Your task to perform on an android device: Open Reddit.com Image 0: 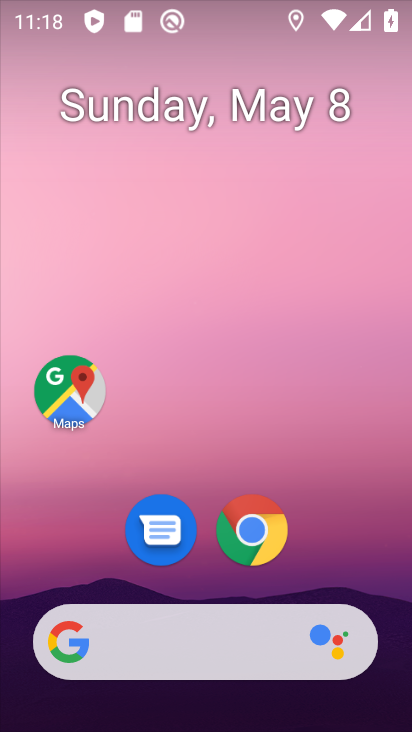
Step 0: drag from (229, 625) to (401, 575)
Your task to perform on an android device: Open Reddit.com Image 1: 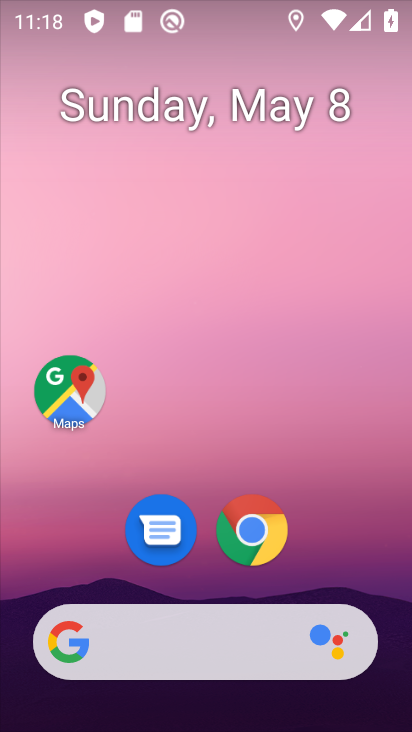
Step 1: drag from (249, 599) to (270, 44)
Your task to perform on an android device: Open Reddit.com Image 2: 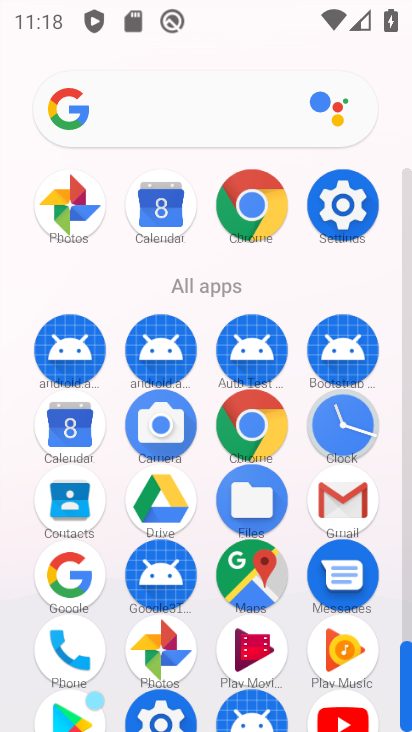
Step 2: click (242, 440)
Your task to perform on an android device: Open Reddit.com Image 3: 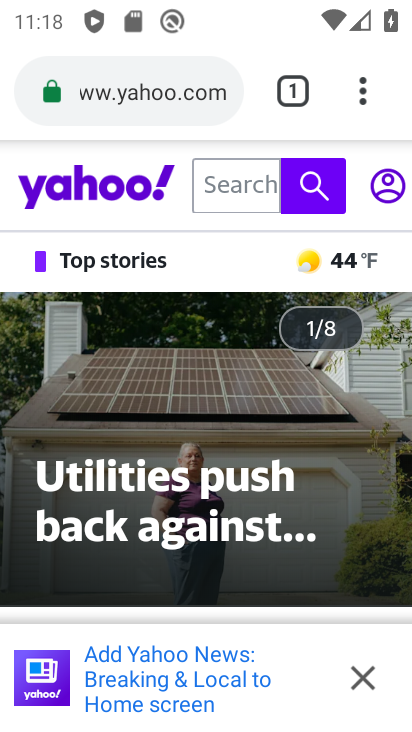
Step 3: click (154, 103)
Your task to perform on an android device: Open Reddit.com Image 4: 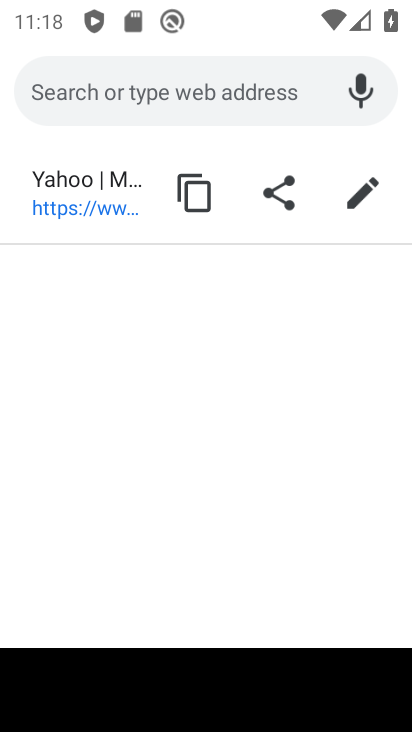
Step 4: type "reddit.com"
Your task to perform on an android device: Open Reddit.com Image 5: 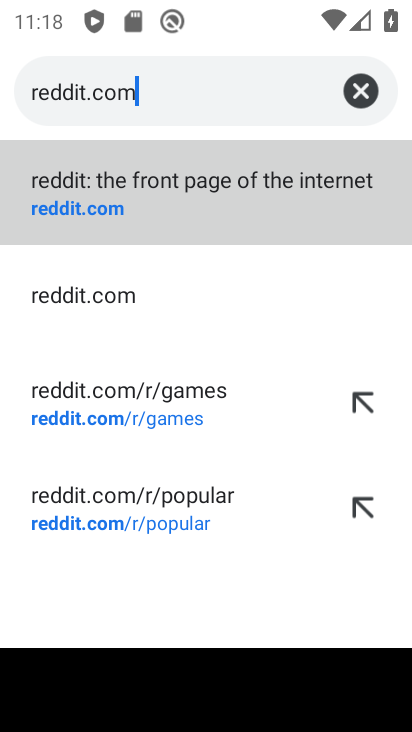
Step 5: click (124, 208)
Your task to perform on an android device: Open Reddit.com Image 6: 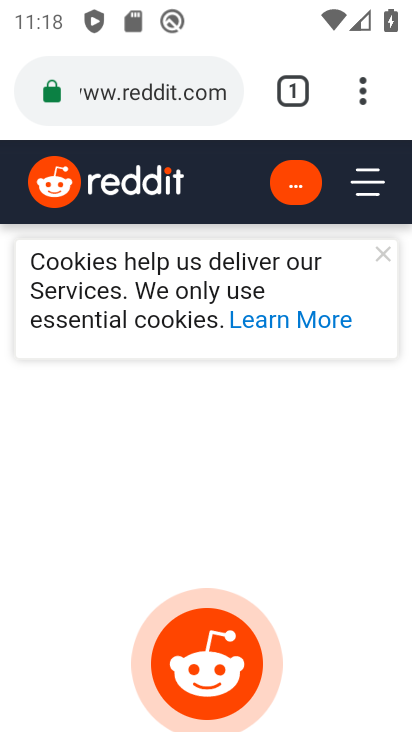
Step 6: task complete